Your task to perform on an android device: Open notification settings Image 0: 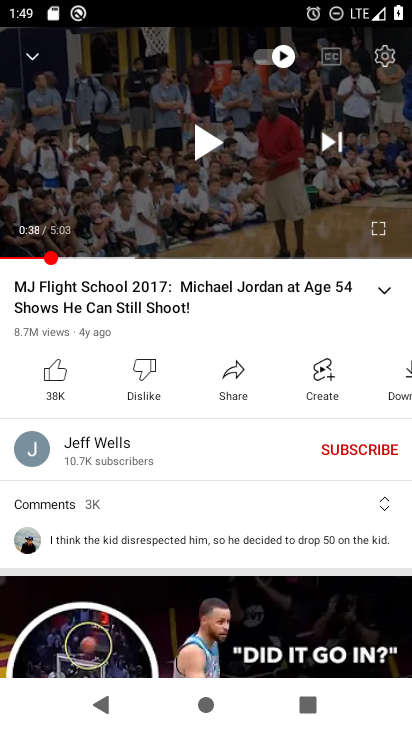
Step 0: press home button
Your task to perform on an android device: Open notification settings Image 1: 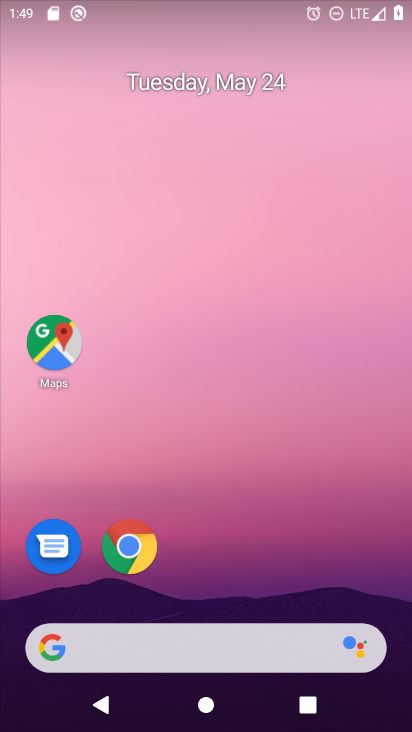
Step 1: drag from (306, 612) to (340, 0)
Your task to perform on an android device: Open notification settings Image 2: 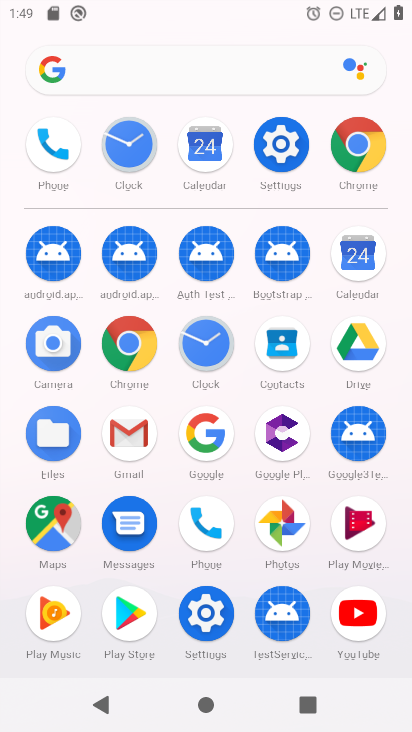
Step 2: click (273, 138)
Your task to perform on an android device: Open notification settings Image 3: 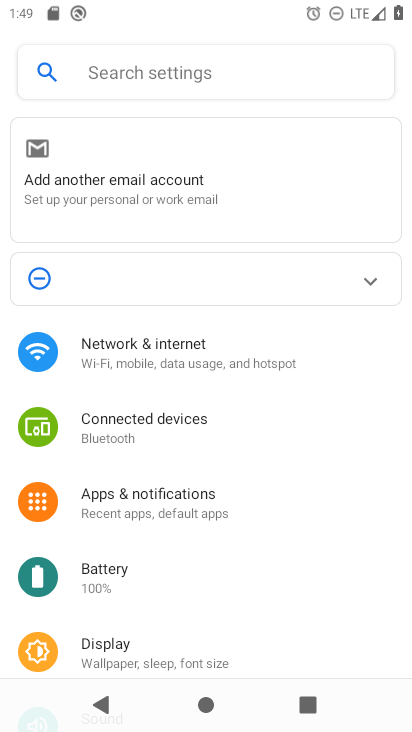
Step 3: click (170, 487)
Your task to perform on an android device: Open notification settings Image 4: 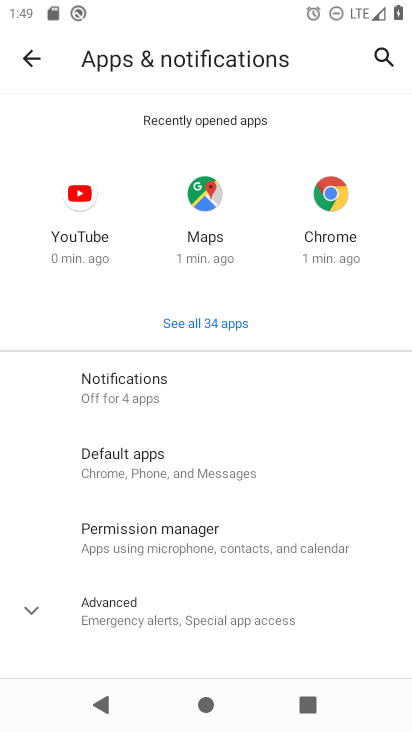
Step 4: click (200, 499)
Your task to perform on an android device: Open notification settings Image 5: 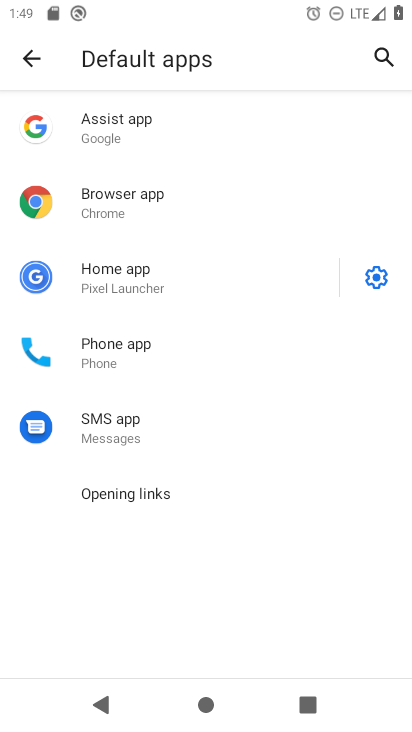
Step 5: task complete